Your task to perform on an android device: check google app version Image 0: 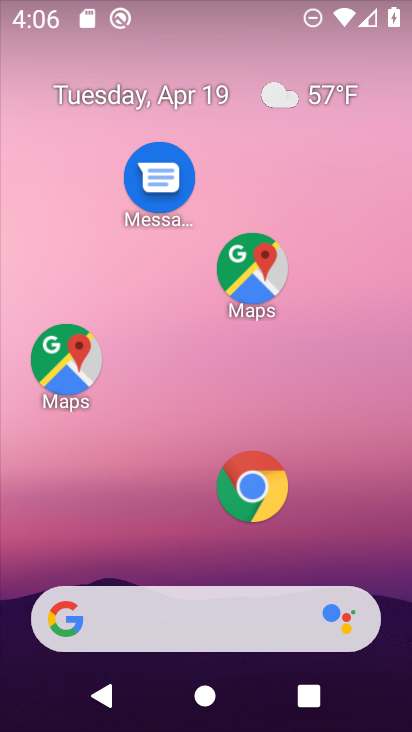
Step 0: drag from (216, 548) to (229, 84)
Your task to perform on an android device: check google app version Image 1: 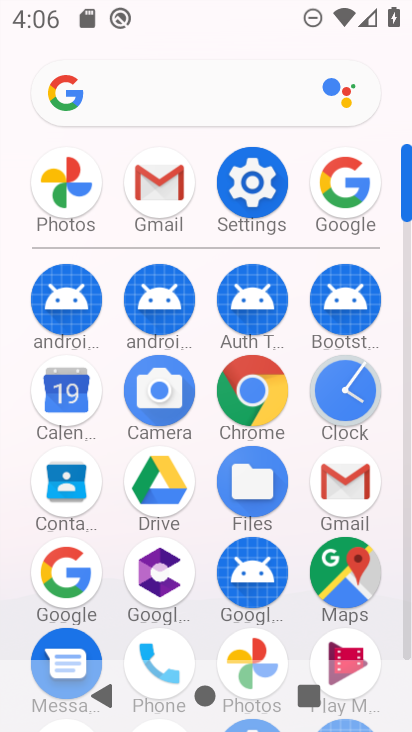
Step 1: click (91, 578)
Your task to perform on an android device: check google app version Image 2: 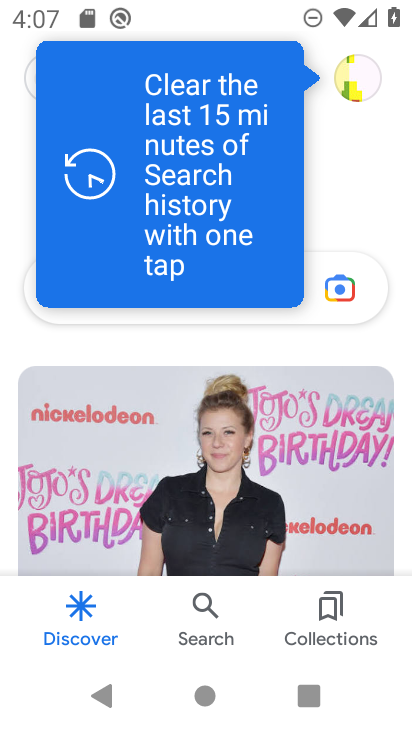
Step 2: click (351, 88)
Your task to perform on an android device: check google app version Image 3: 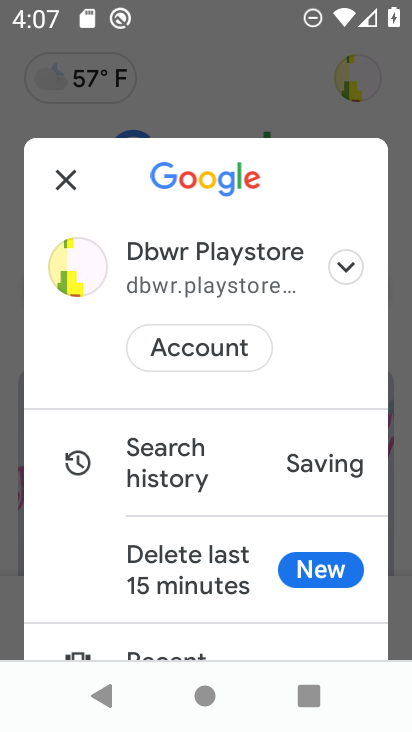
Step 3: drag from (209, 573) to (254, 200)
Your task to perform on an android device: check google app version Image 4: 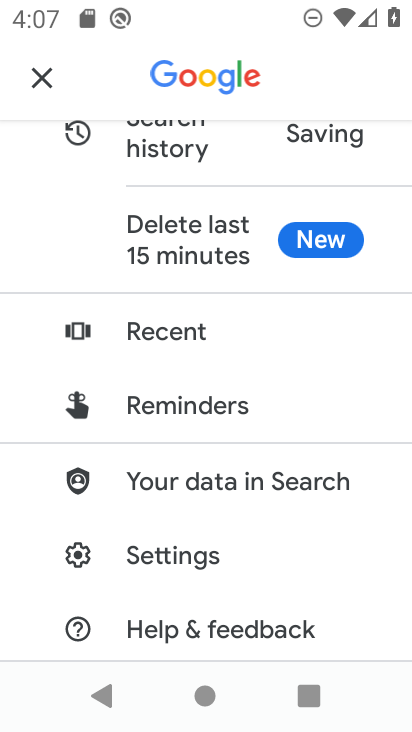
Step 4: click (184, 559)
Your task to perform on an android device: check google app version Image 5: 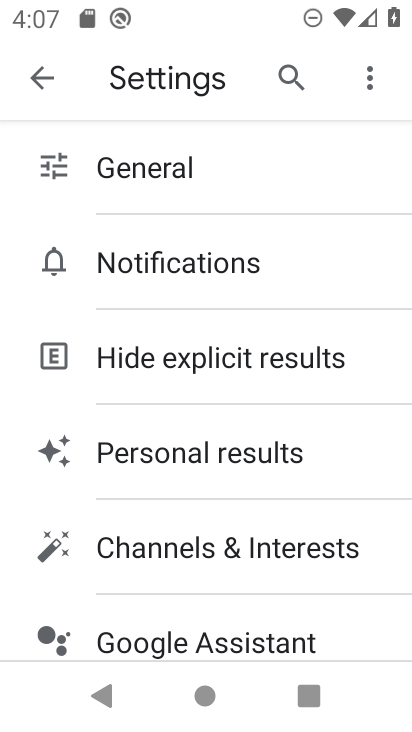
Step 5: drag from (226, 609) to (209, 105)
Your task to perform on an android device: check google app version Image 6: 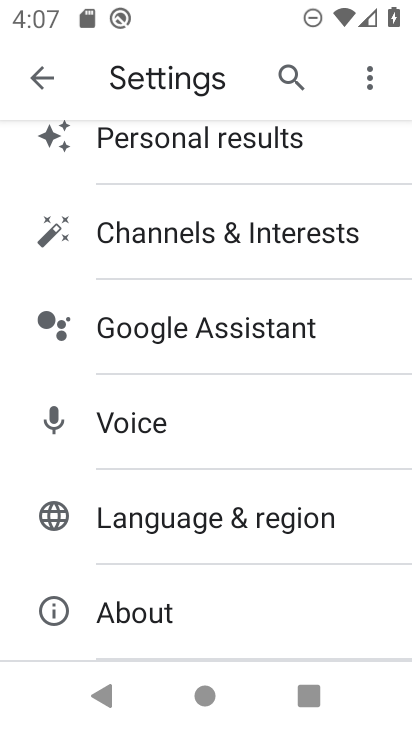
Step 6: click (183, 614)
Your task to perform on an android device: check google app version Image 7: 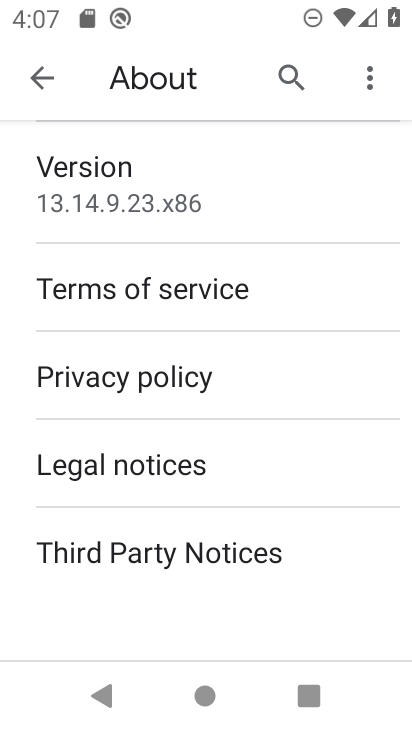
Step 7: click (246, 203)
Your task to perform on an android device: check google app version Image 8: 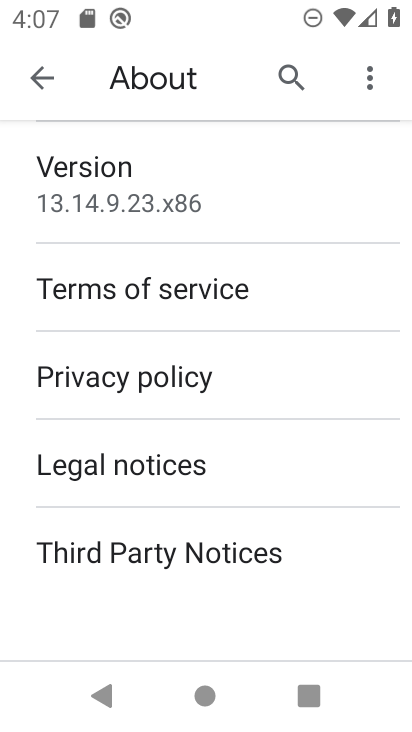
Step 8: task complete